Your task to perform on an android device: change the clock display to digital Image 0: 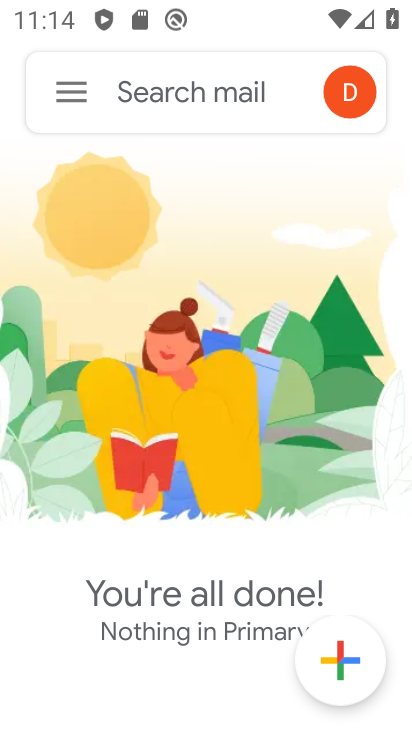
Step 0: press home button
Your task to perform on an android device: change the clock display to digital Image 1: 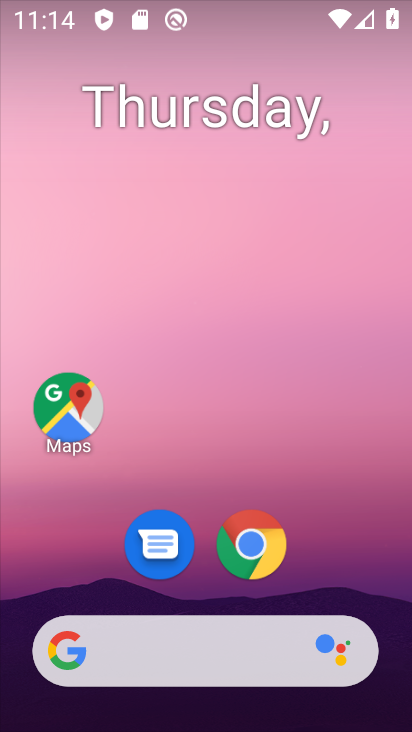
Step 1: drag from (238, 615) to (170, 11)
Your task to perform on an android device: change the clock display to digital Image 2: 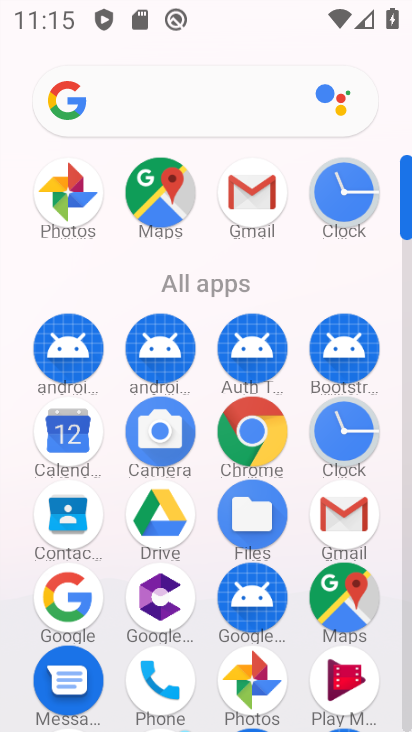
Step 2: click (351, 431)
Your task to perform on an android device: change the clock display to digital Image 3: 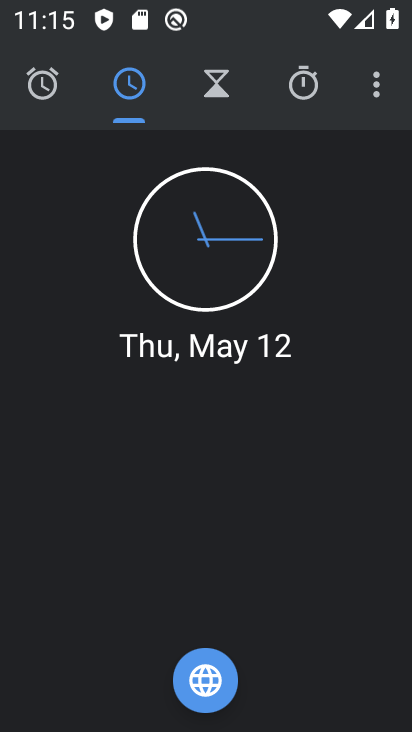
Step 3: click (376, 75)
Your task to perform on an android device: change the clock display to digital Image 4: 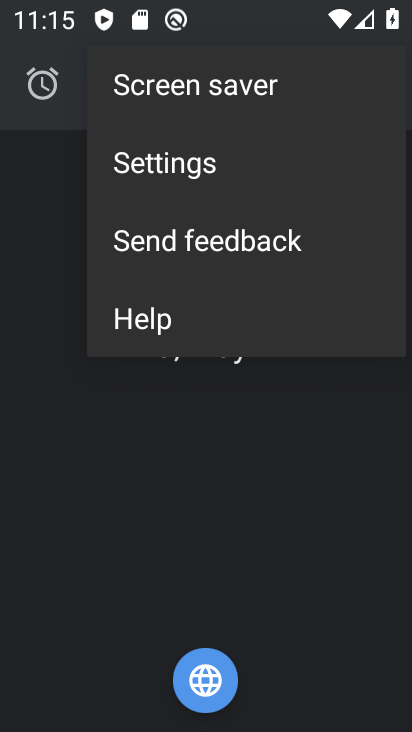
Step 4: click (147, 168)
Your task to perform on an android device: change the clock display to digital Image 5: 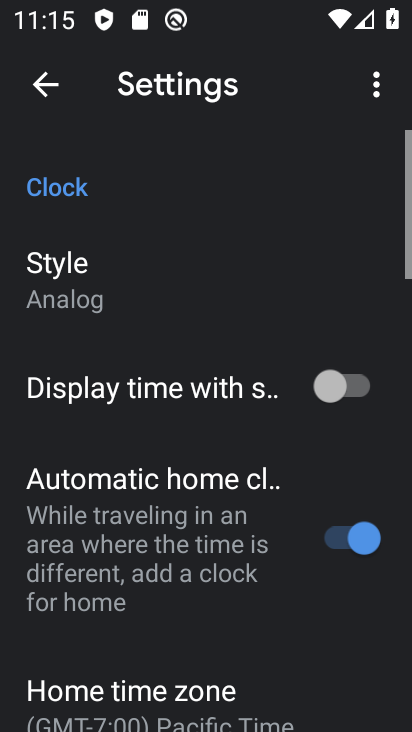
Step 5: click (81, 294)
Your task to perform on an android device: change the clock display to digital Image 6: 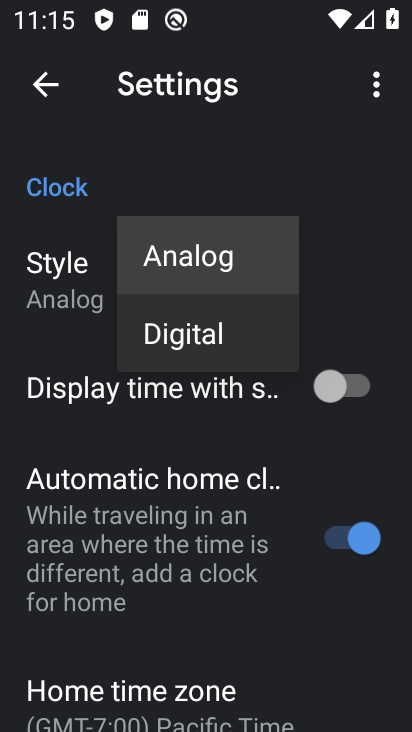
Step 6: click (183, 311)
Your task to perform on an android device: change the clock display to digital Image 7: 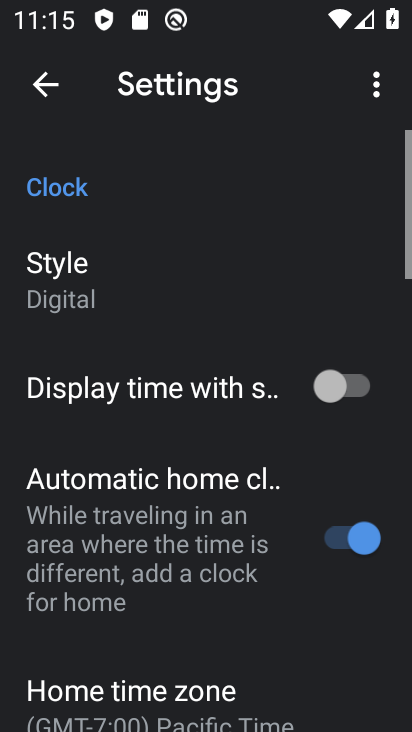
Step 7: task complete